Your task to perform on an android device: toggle show notifications on the lock screen Image 0: 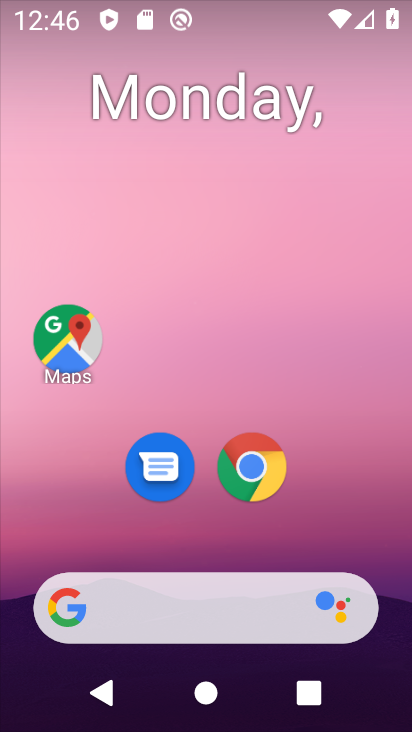
Step 0: drag from (354, 524) to (349, 0)
Your task to perform on an android device: toggle show notifications on the lock screen Image 1: 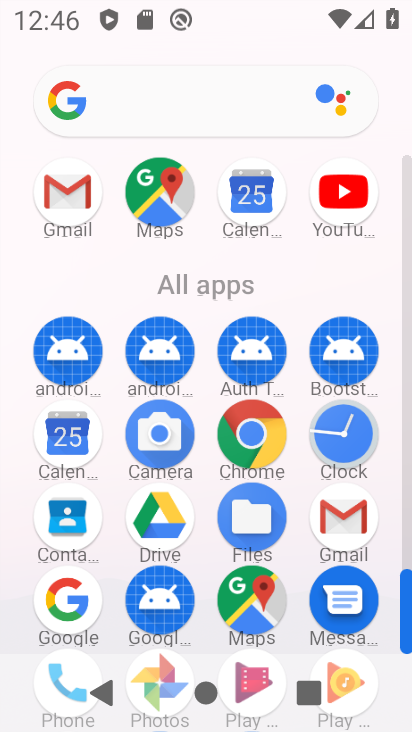
Step 1: drag from (204, 542) to (273, 154)
Your task to perform on an android device: toggle show notifications on the lock screen Image 2: 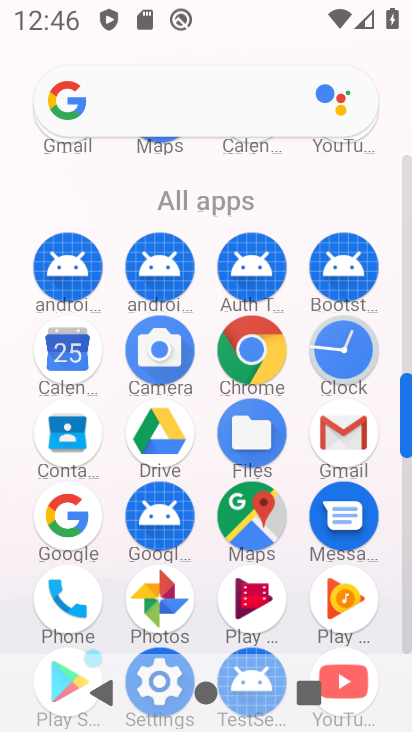
Step 2: drag from (206, 525) to (231, 220)
Your task to perform on an android device: toggle show notifications on the lock screen Image 3: 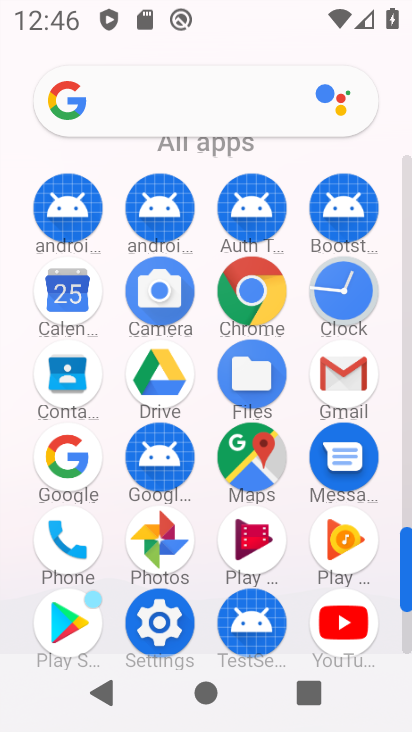
Step 3: click (167, 644)
Your task to perform on an android device: toggle show notifications on the lock screen Image 4: 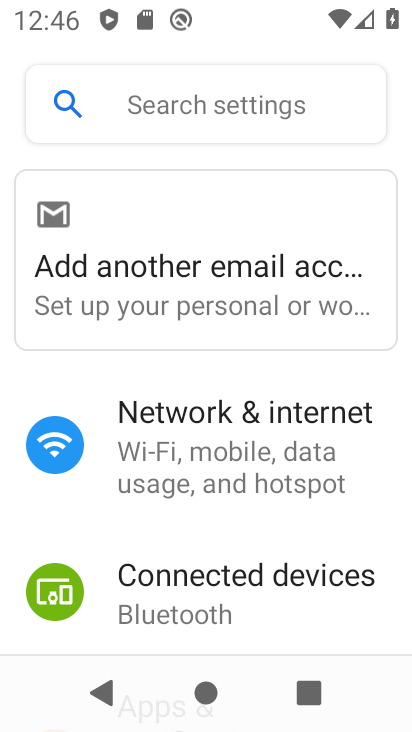
Step 4: drag from (214, 591) to (296, 161)
Your task to perform on an android device: toggle show notifications on the lock screen Image 5: 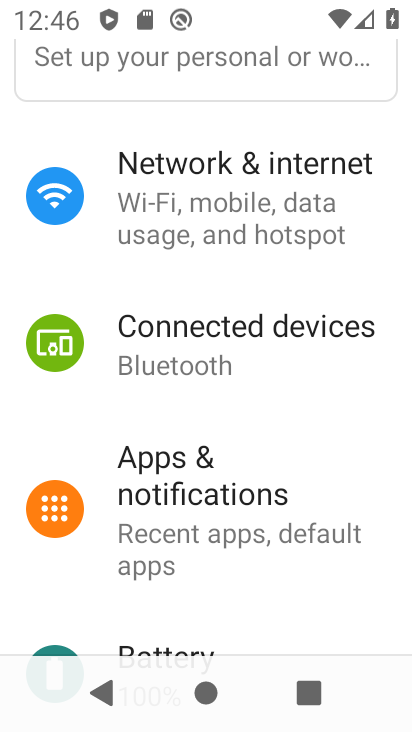
Step 5: click (239, 487)
Your task to perform on an android device: toggle show notifications on the lock screen Image 6: 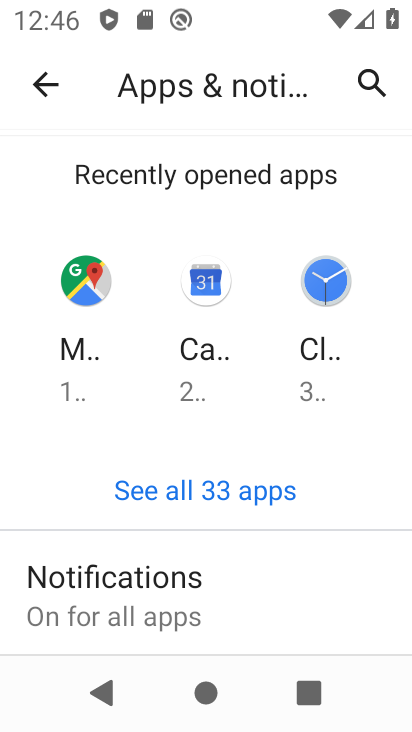
Step 6: click (140, 600)
Your task to perform on an android device: toggle show notifications on the lock screen Image 7: 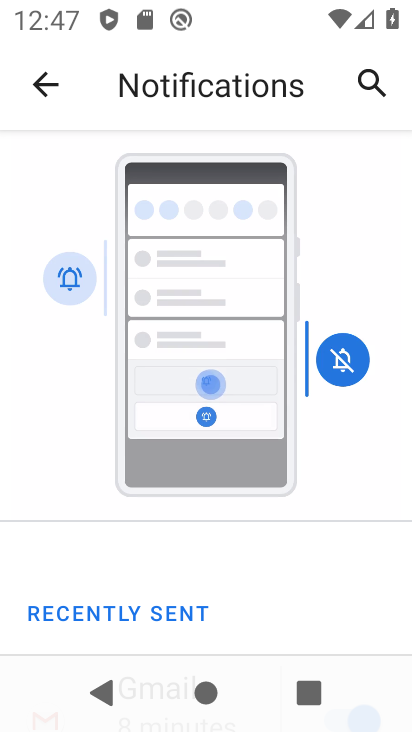
Step 7: drag from (134, 602) to (196, 352)
Your task to perform on an android device: toggle show notifications on the lock screen Image 8: 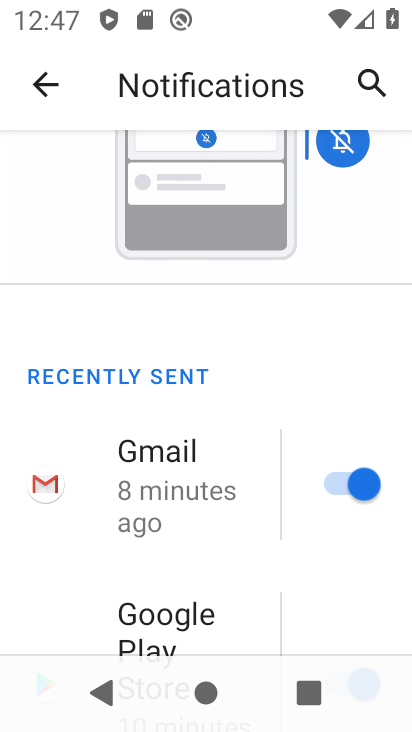
Step 8: drag from (205, 587) to (233, 325)
Your task to perform on an android device: toggle show notifications on the lock screen Image 9: 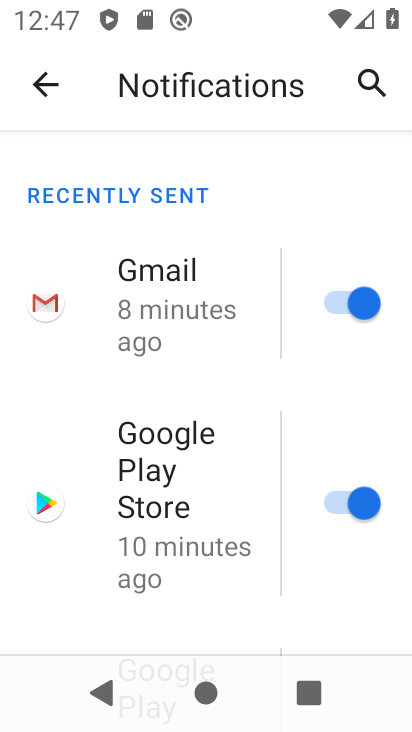
Step 9: drag from (200, 475) to (232, 309)
Your task to perform on an android device: toggle show notifications on the lock screen Image 10: 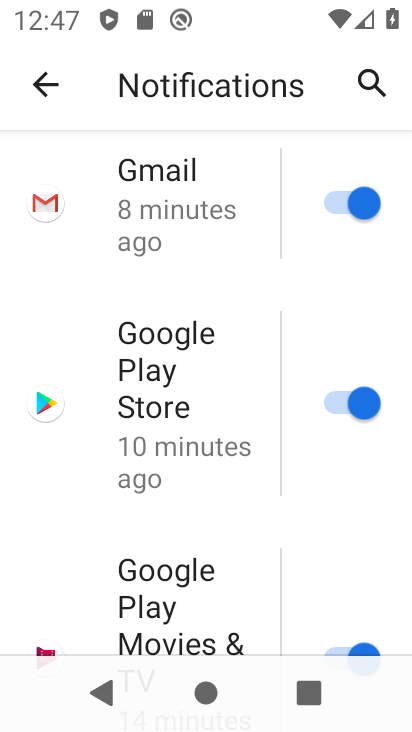
Step 10: drag from (196, 509) to (232, 280)
Your task to perform on an android device: toggle show notifications on the lock screen Image 11: 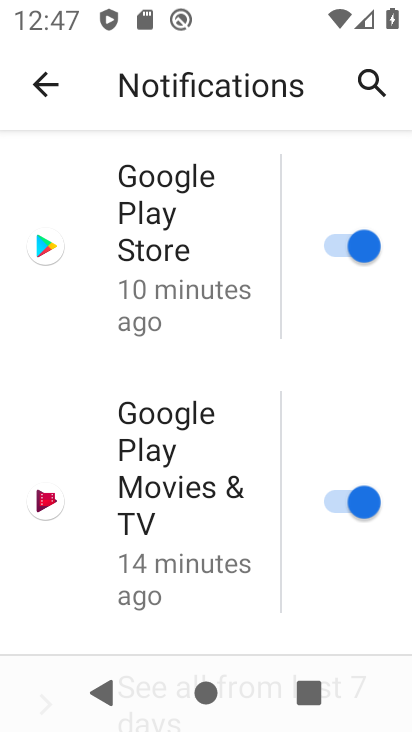
Step 11: drag from (229, 471) to (235, 249)
Your task to perform on an android device: toggle show notifications on the lock screen Image 12: 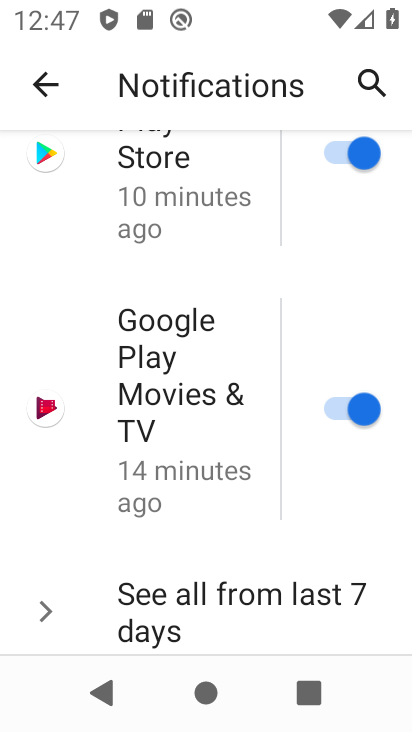
Step 12: drag from (182, 509) to (180, 318)
Your task to perform on an android device: toggle show notifications on the lock screen Image 13: 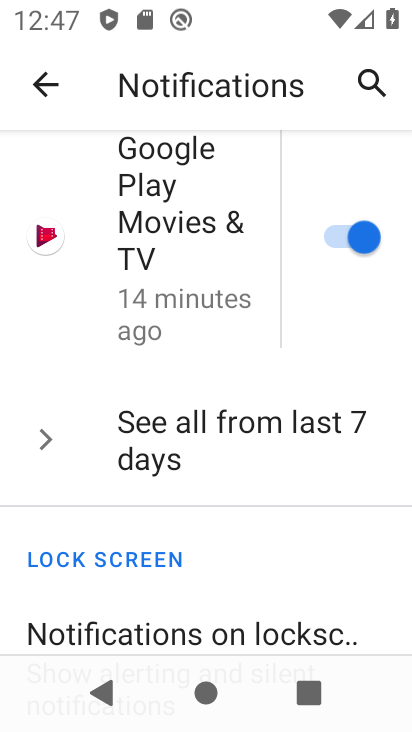
Step 13: drag from (204, 498) to (210, 299)
Your task to perform on an android device: toggle show notifications on the lock screen Image 14: 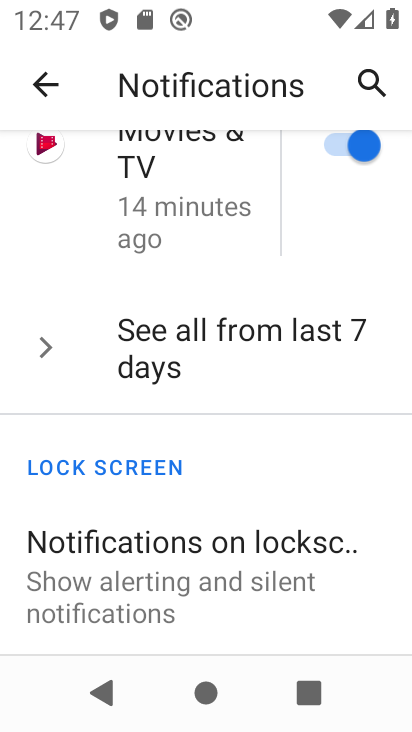
Step 14: click (179, 555)
Your task to perform on an android device: toggle show notifications on the lock screen Image 15: 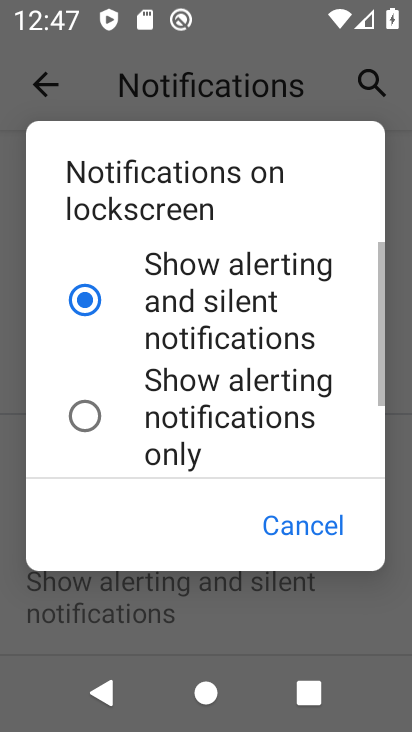
Step 15: click (208, 389)
Your task to perform on an android device: toggle show notifications on the lock screen Image 16: 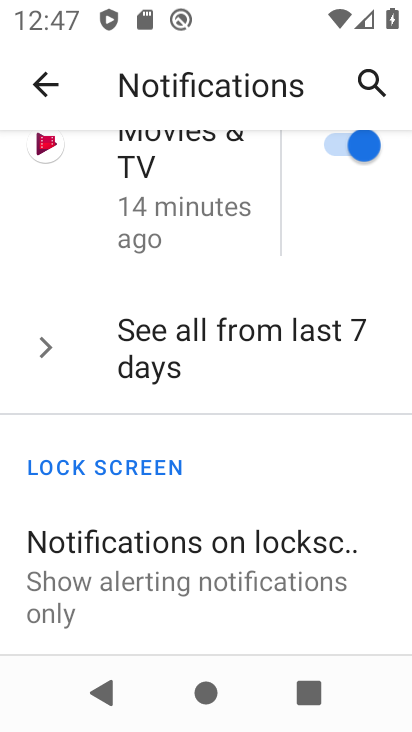
Step 16: task complete